Your task to perform on an android device: What's on my calendar today? Image 0: 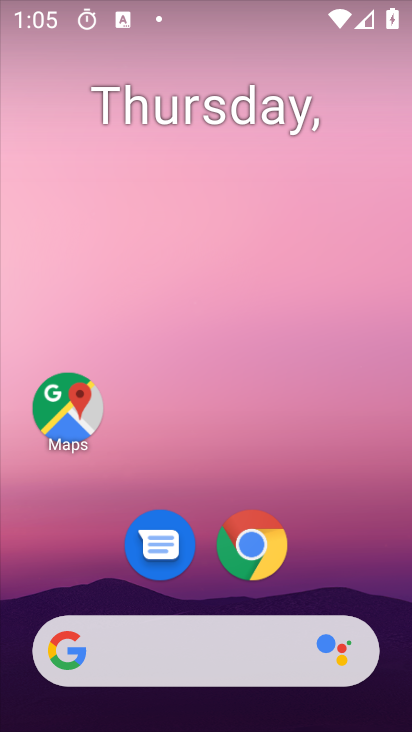
Step 0: drag from (336, 661) to (357, 76)
Your task to perform on an android device: What's on my calendar today? Image 1: 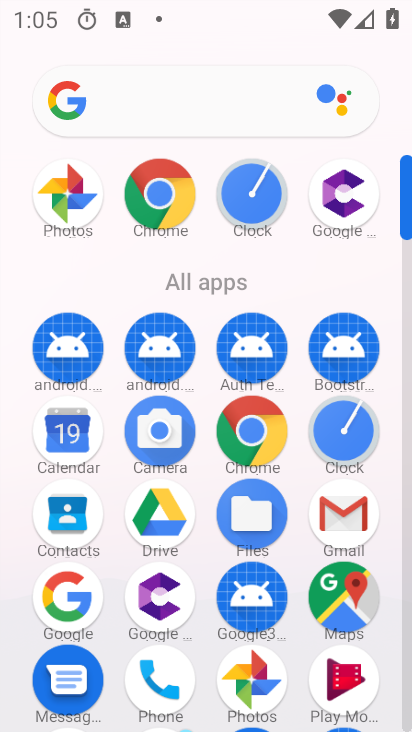
Step 1: click (65, 446)
Your task to perform on an android device: What's on my calendar today? Image 2: 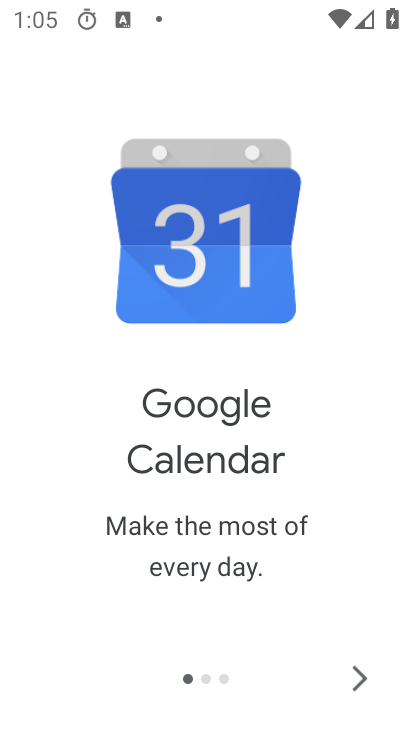
Step 2: click (357, 689)
Your task to perform on an android device: What's on my calendar today? Image 3: 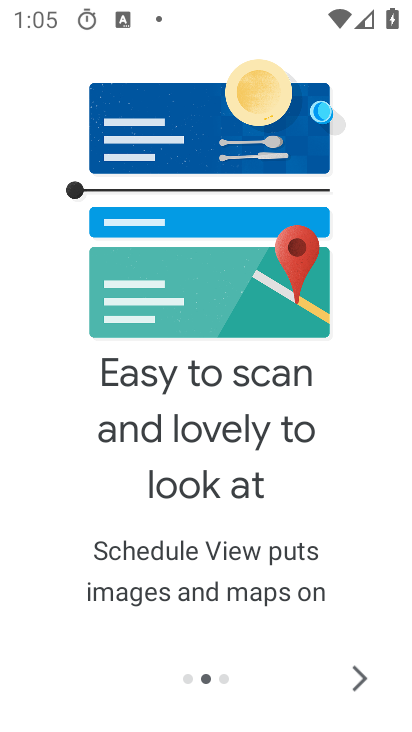
Step 3: click (361, 675)
Your task to perform on an android device: What's on my calendar today? Image 4: 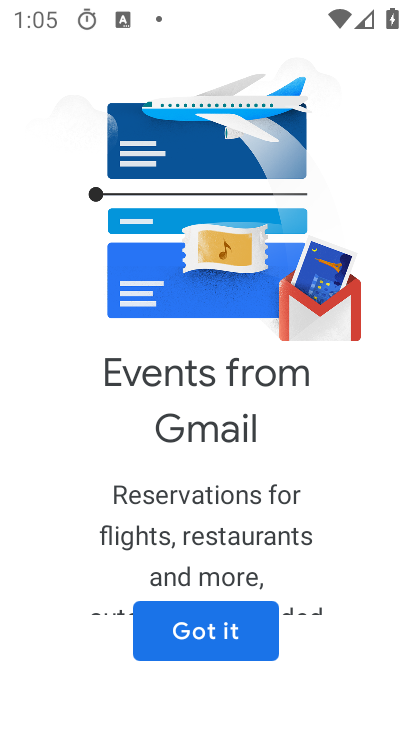
Step 4: click (246, 636)
Your task to perform on an android device: What's on my calendar today? Image 5: 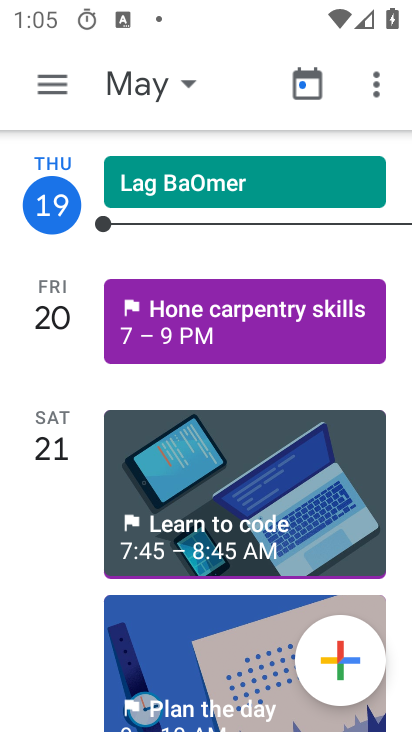
Step 5: click (182, 88)
Your task to perform on an android device: What's on my calendar today? Image 6: 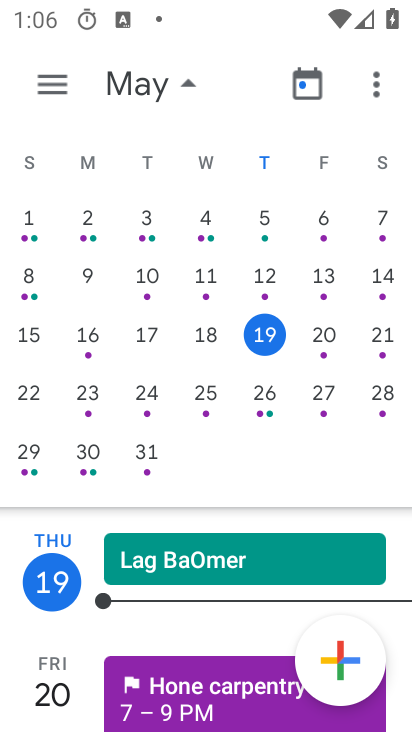
Step 6: click (256, 327)
Your task to perform on an android device: What's on my calendar today? Image 7: 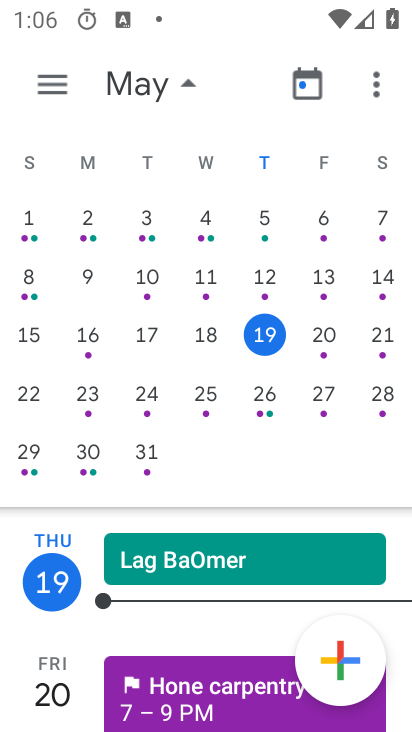
Step 7: task complete